Your task to perform on an android device: Show me popular games on the Play Store Image 0: 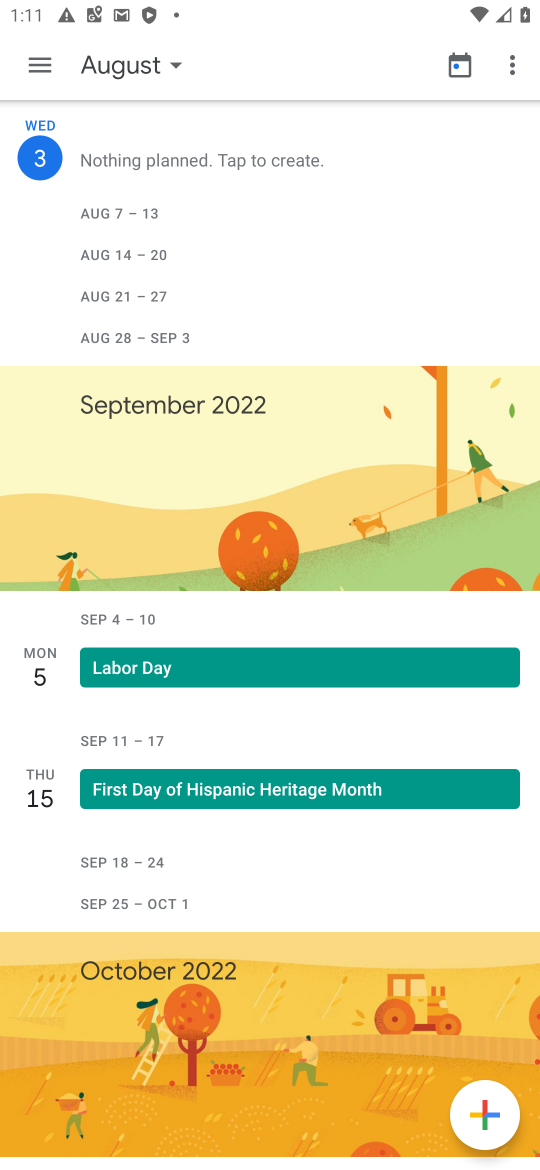
Step 0: press home button
Your task to perform on an android device: Show me popular games on the Play Store Image 1: 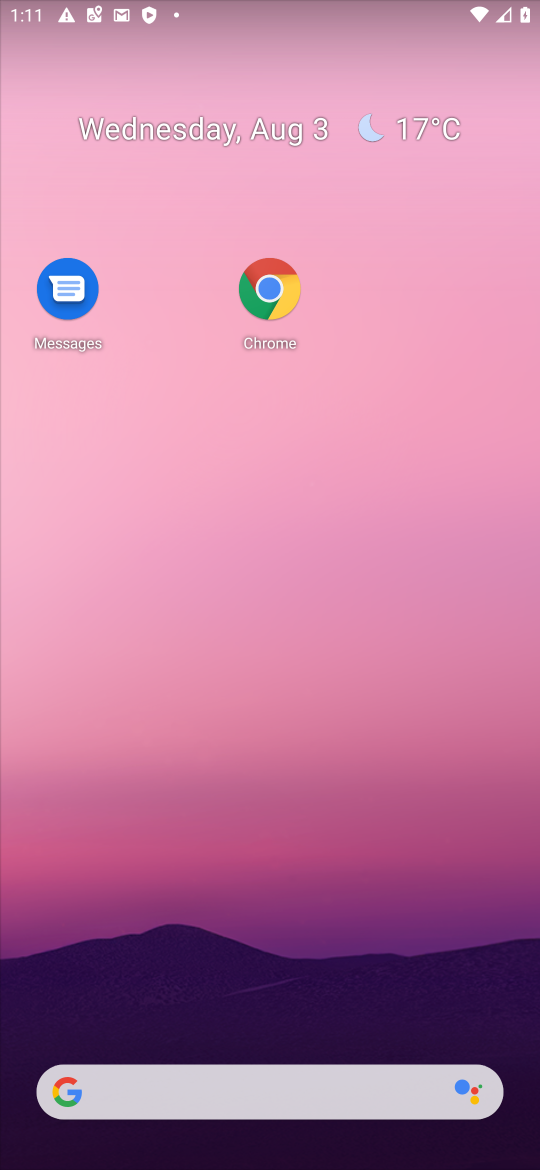
Step 1: drag from (294, 1033) to (293, 187)
Your task to perform on an android device: Show me popular games on the Play Store Image 2: 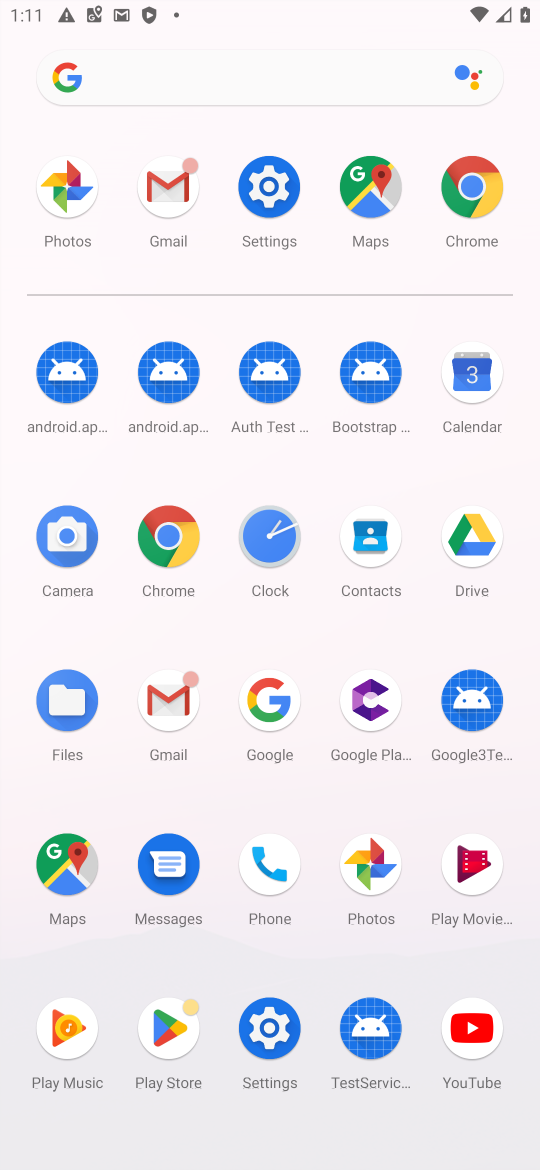
Step 2: click (154, 1068)
Your task to perform on an android device: Show me popular games on the Play Store Image 3: 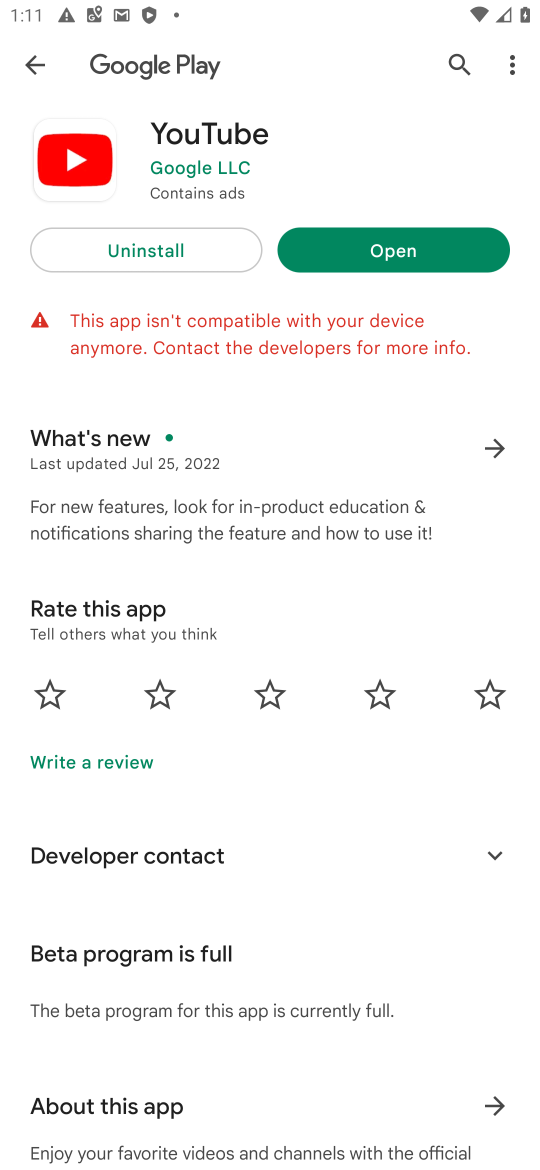
Step 3: click (34, 64)
Your task to perform on an android device: Show me popular games on the Play Store Image 4: 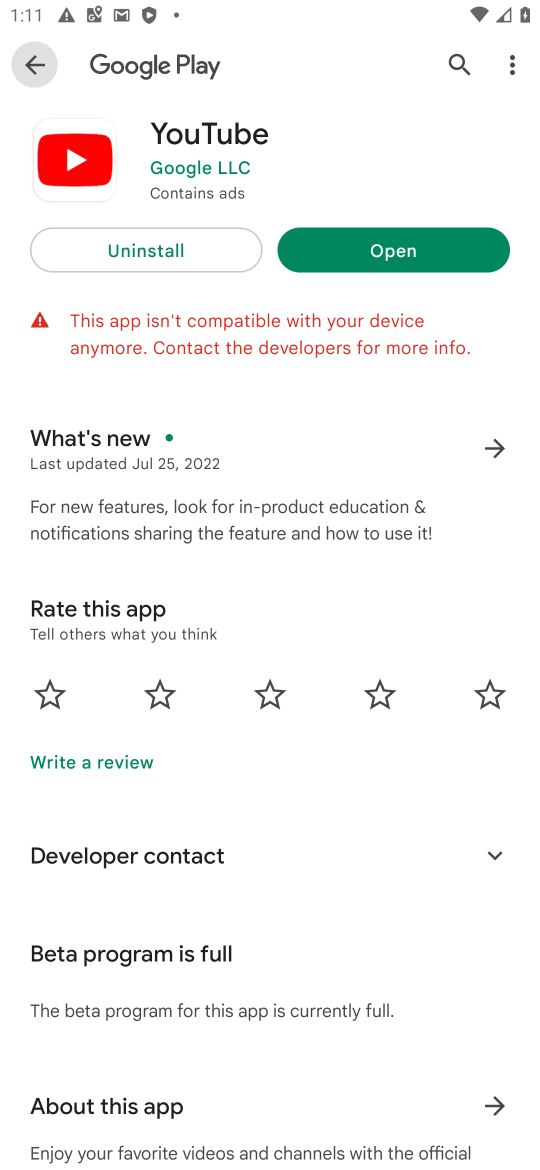
Step 4: click (34, 64)
Your task to perform on an android device: Show me popular games on the Play Store Image 5: 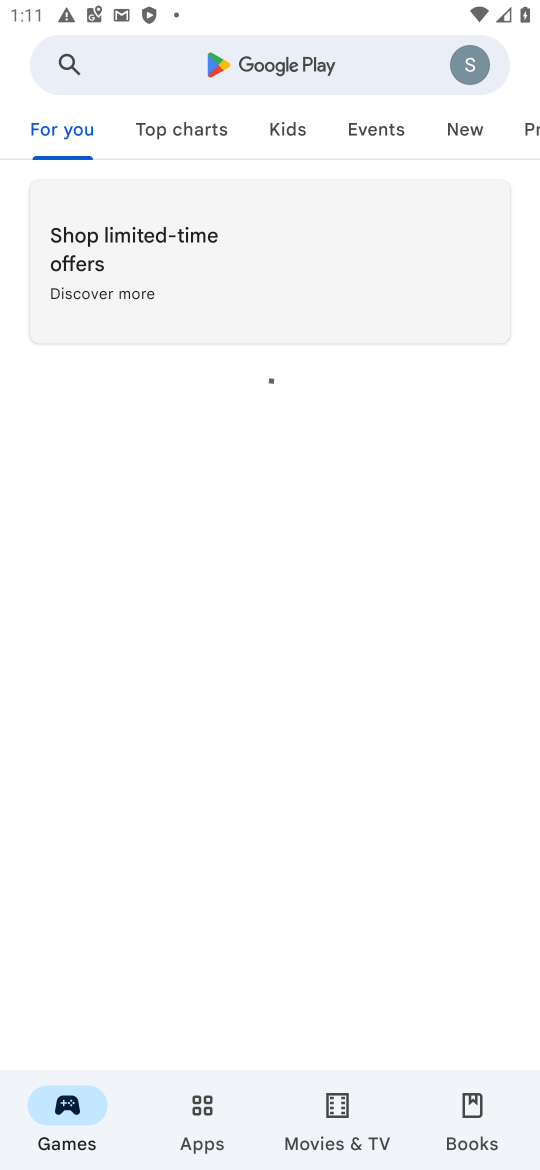
Step 5: click (34, 64)
Your task to perform on an android device: Show me popular games on the Play Store Image 6: 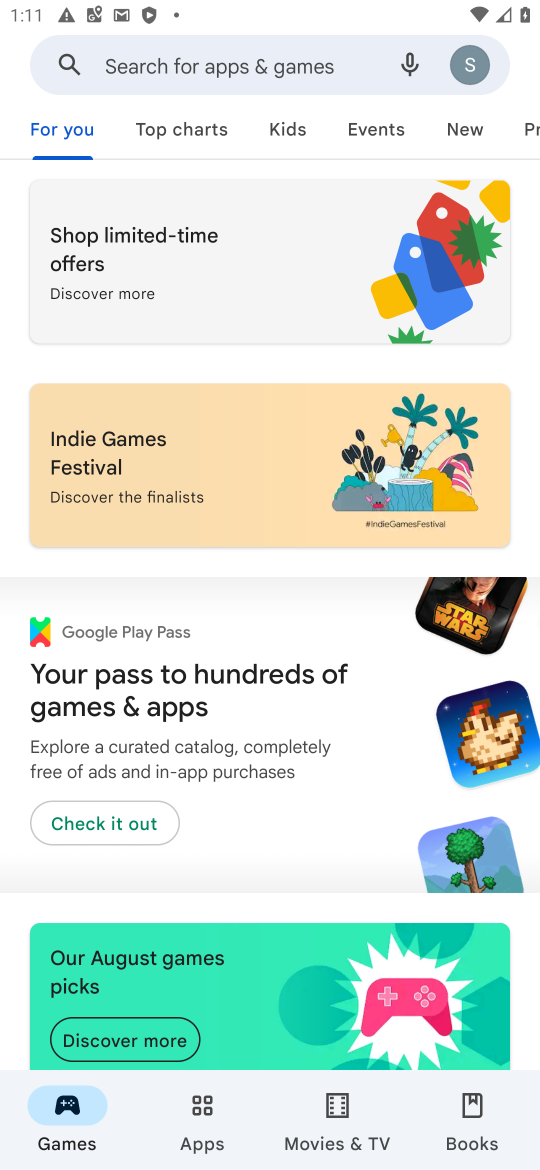
Step 6: task complete